Your task to perform on an android device: set the timer Image 0: 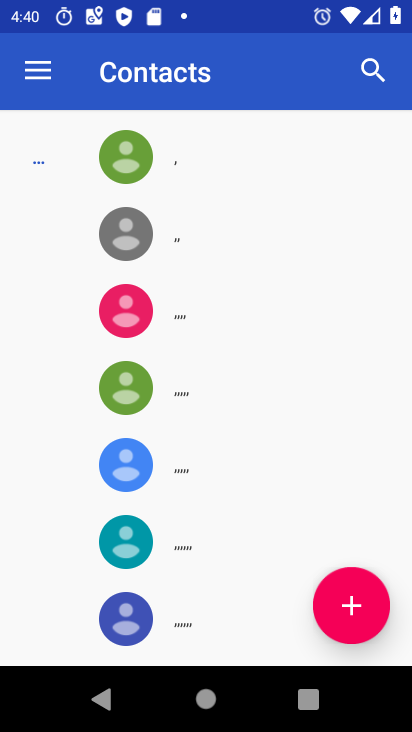
Step 0: press home button
Your task to perform on an android device: set the timer Image 1: 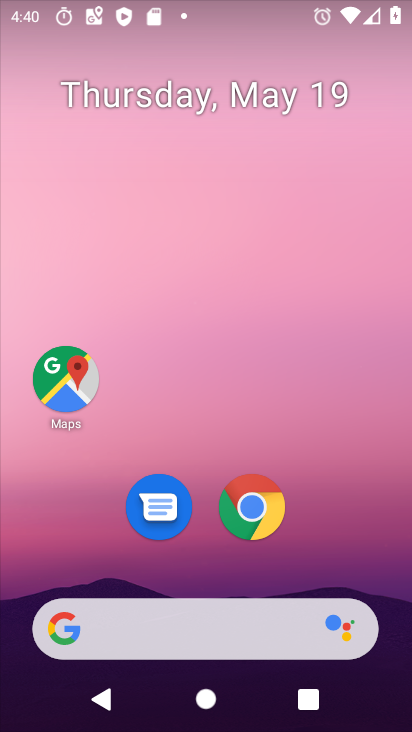
Step 1: drag from (396, 657) to (379, 264)
Your task to perform on an android device: set the timer Image 2: 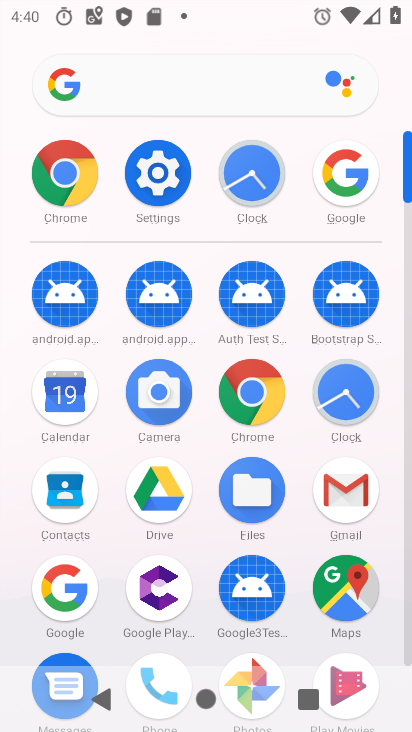
Step 2: click (254, 182)
Your task to perform on an android device: set the timer Image 3: 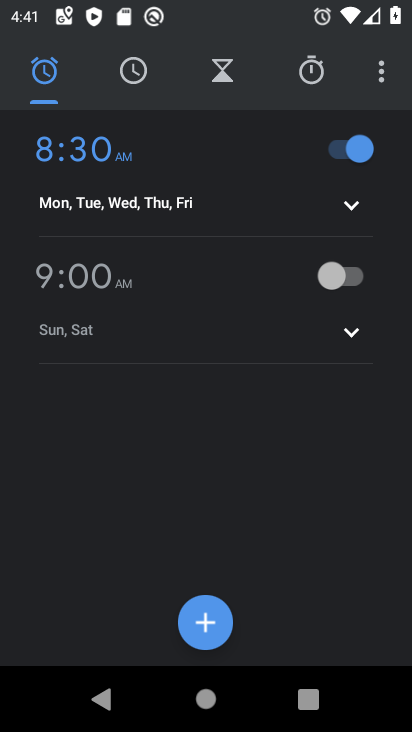
Step 3: click (382, 62)
Your task to perform on an android device: set the timer Image 4: 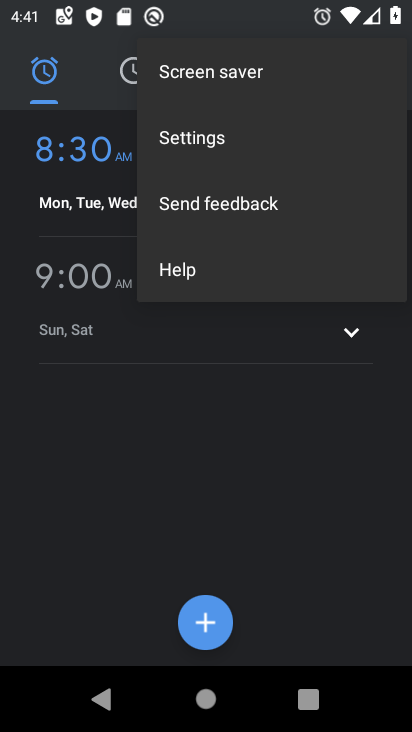
Step 4: click (380, 70)
Your task to perform on an android device: set the timer Image 5: 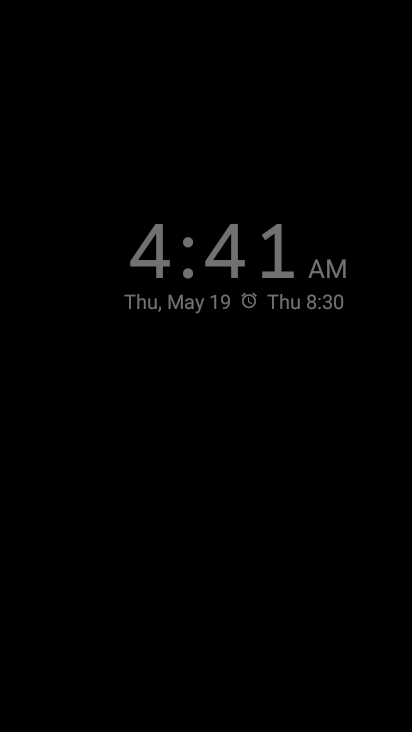
Step 5: click (379, 66)
Your task to perform on an android device: set the timer Image 6: 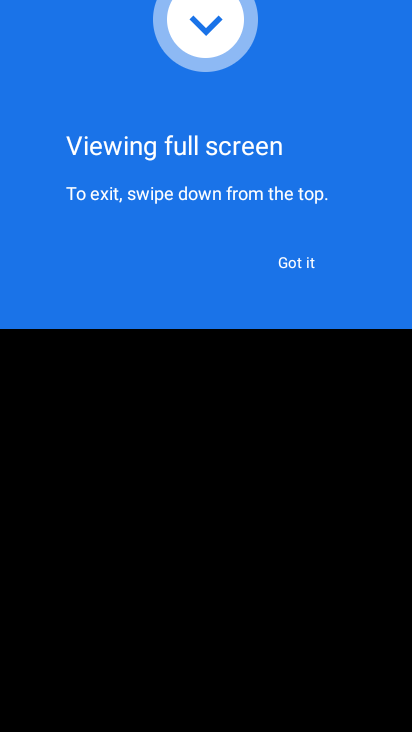
Step 6: press home button
Your task to perform on an android device: set the timer Image 7: 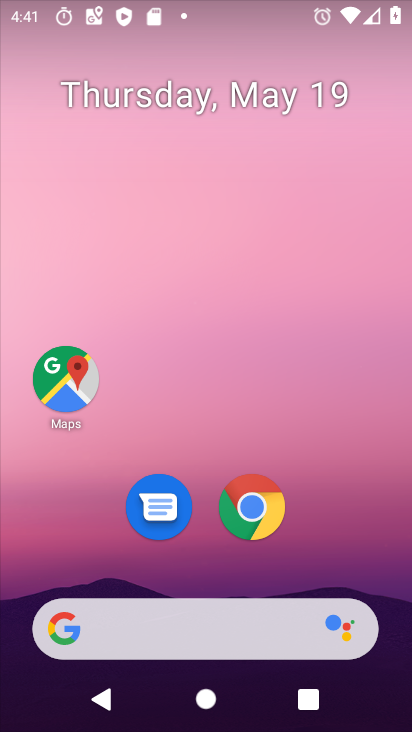
Step 7: click (349, 488)
Your task to perform on an android device: set the timer Image 8: 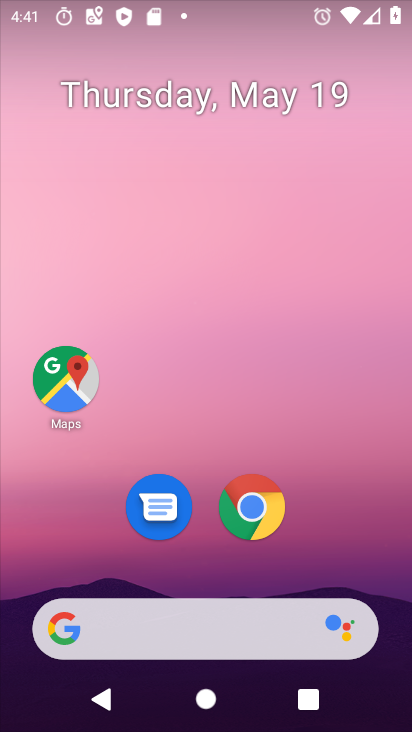
Step 8: drag from (395, 704) to (354, 326)
Your task to perform on an android device: set the timer Image 9: 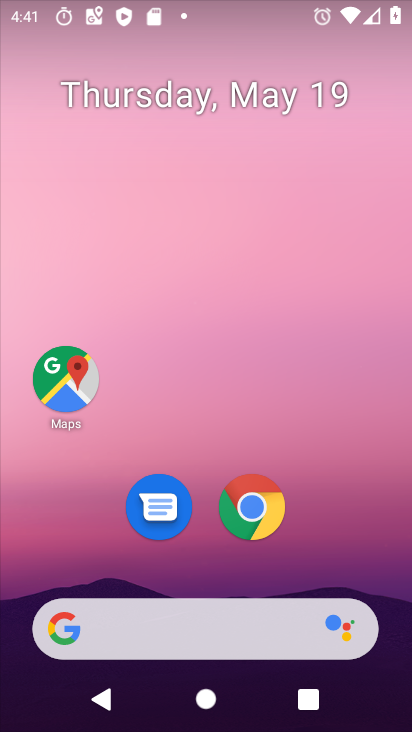
Step 9: click (411, 192)
Your task to perform on an android device: set the timer Image 10: 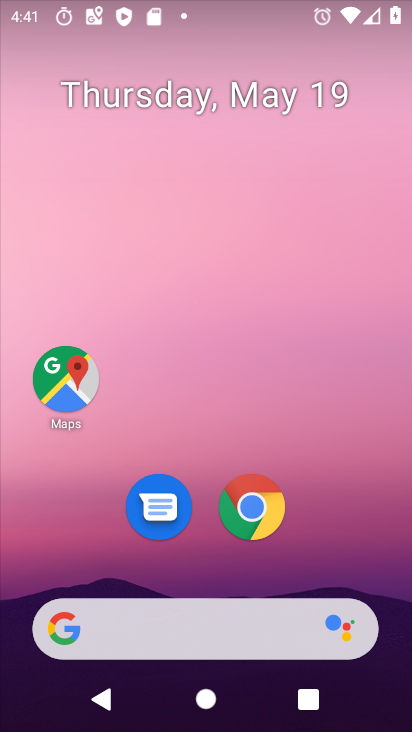
Step 10: drag from (401, 681) to (403, 329)
Your task to perform on an android device: set the timer Image 11: 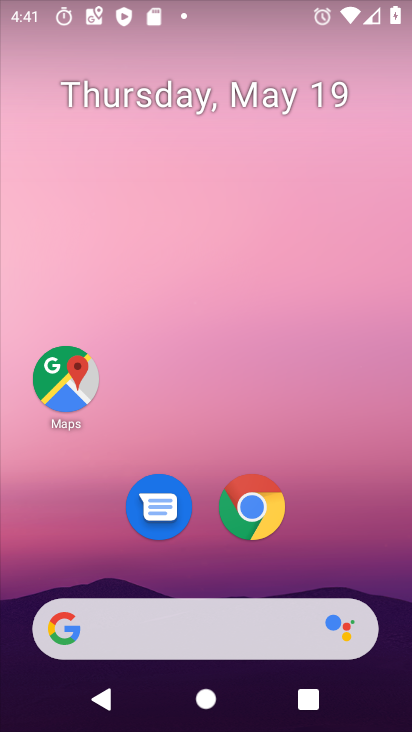
Step 11: drag from (377, 240) to (351, 66)
Your task to perform on an android device: set the timer Image 12: 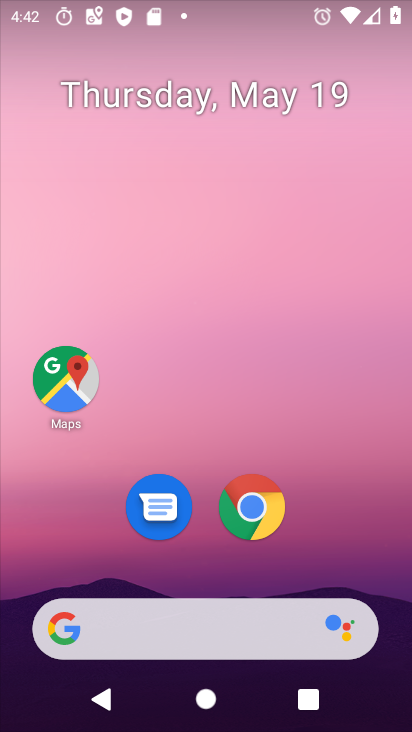
Step 12: drag from (401, 621) to (346, 193)
Your task to perform on an android device: set the timer Image 13: 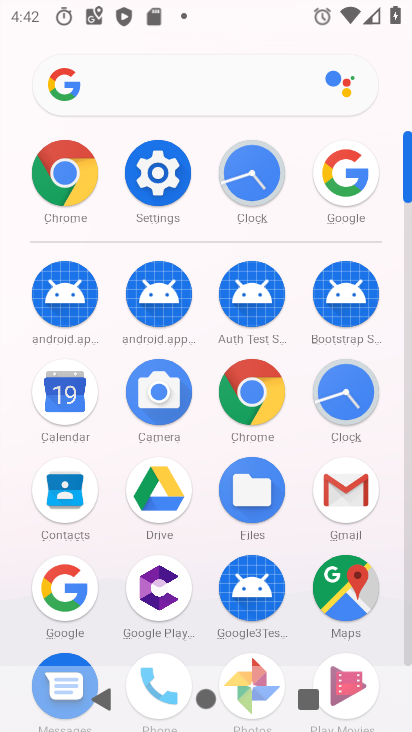
Step 13: click (345, 395)
Your task to perform on an android device: set the timer Image 14: 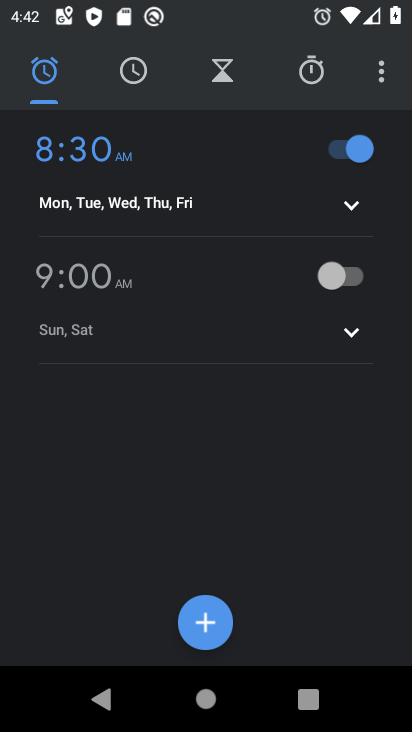
Step 14: click (382, 70)
Your task to perform on an android device: set the timer Image 15: 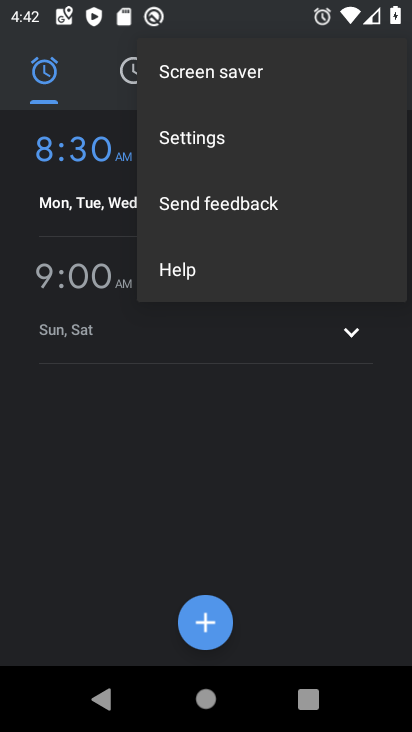
Step 15: click (196, 144)
Your task to perform on an android device: set the timer Image 16: 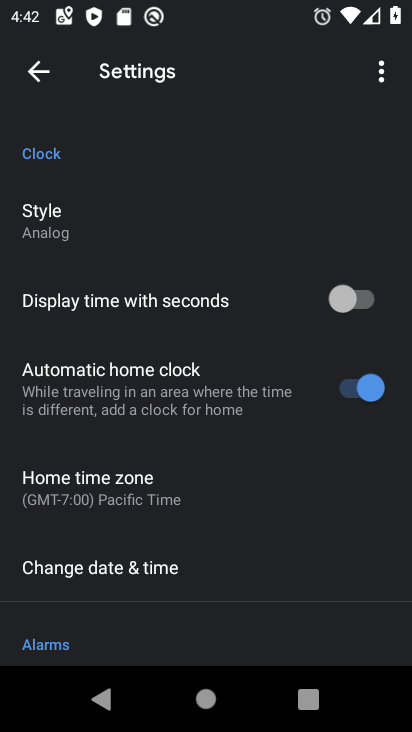
Step 16: click (40, 77)
Your task to perform on an android device: set the timer Image 17: 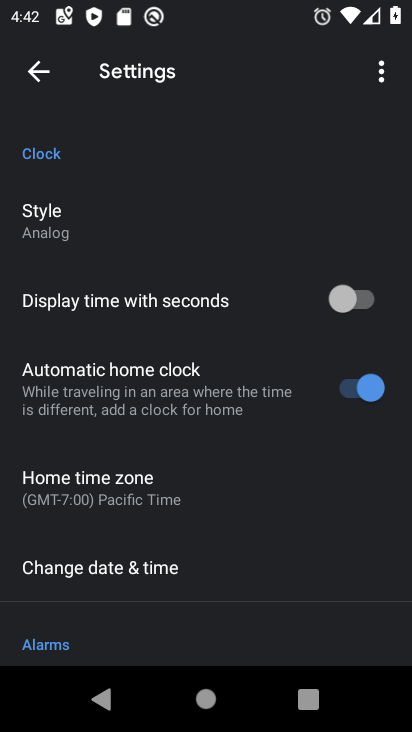
Step 17: click (34, 74)
Your task to perform on an android device: set the timer Image 18: 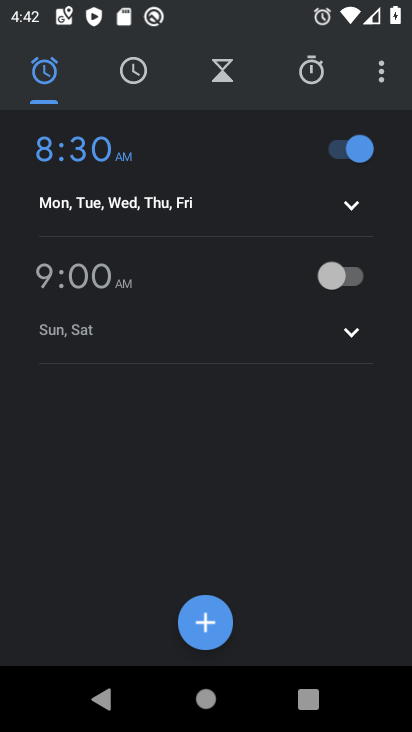
Step 18: click (321, 73)
Your task to perform on an android device: set the timer Image 19: 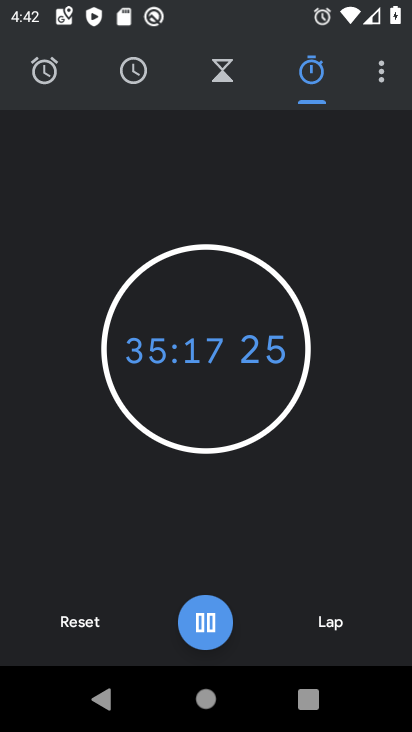
Step 19: click (76, 618)
Your task to perform on an android device: set the timer Image 20: 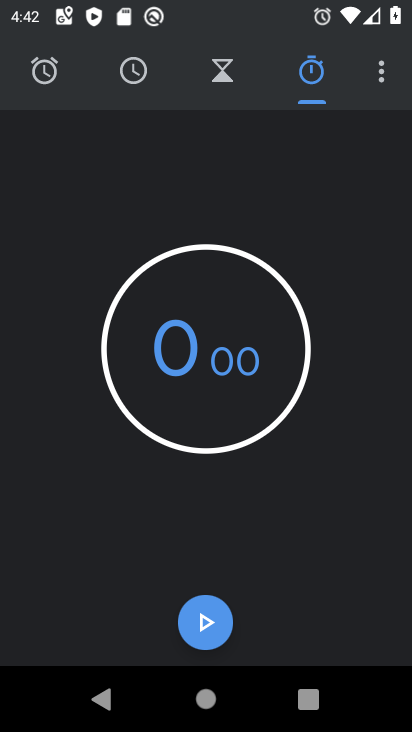
Step 20: click (218, 628)
Your task to perform on an android device: set the timer Image 21: 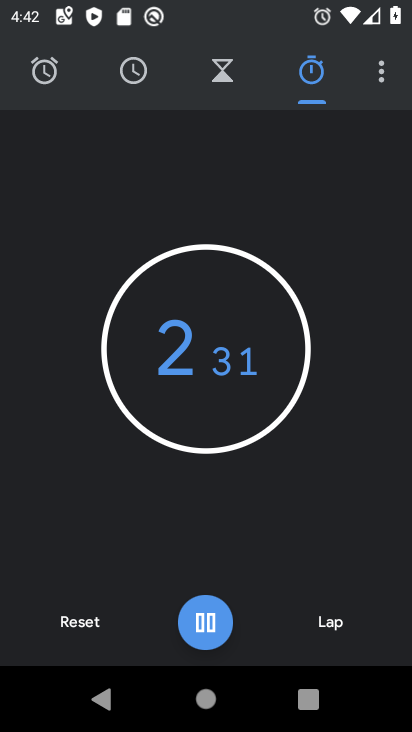
Step 21: task complete